Your task to perform on an android device: Do I have any events today? Image 0: 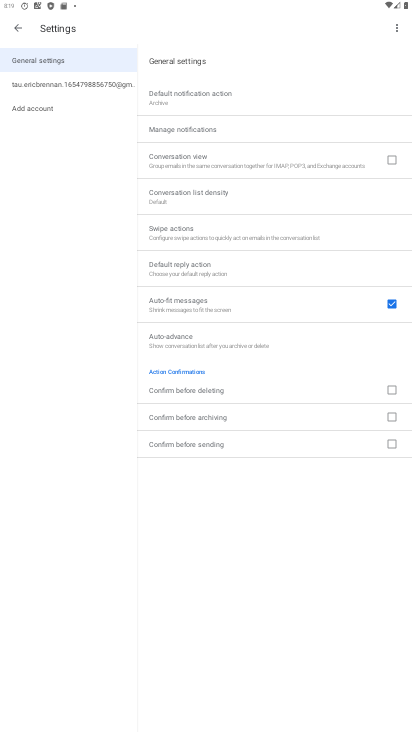
Step 0: click (373, 712)
Your task to perform on an android device: Do I have any events today? Image 1: 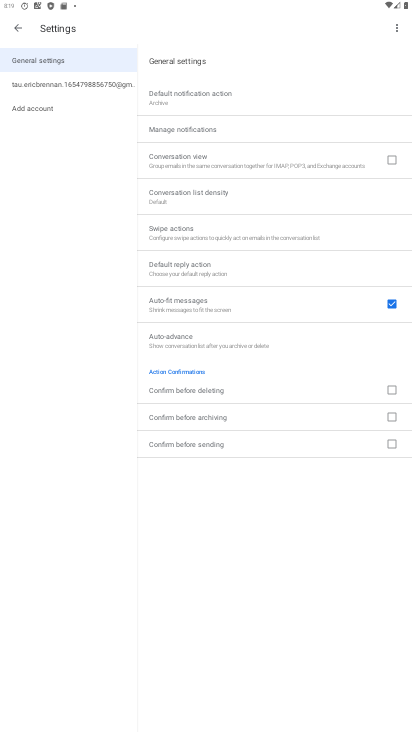
Step 1: drag from (242, 582) to (269, 155)
Your task to perform on an android device: Do I have any events today? Image 2: 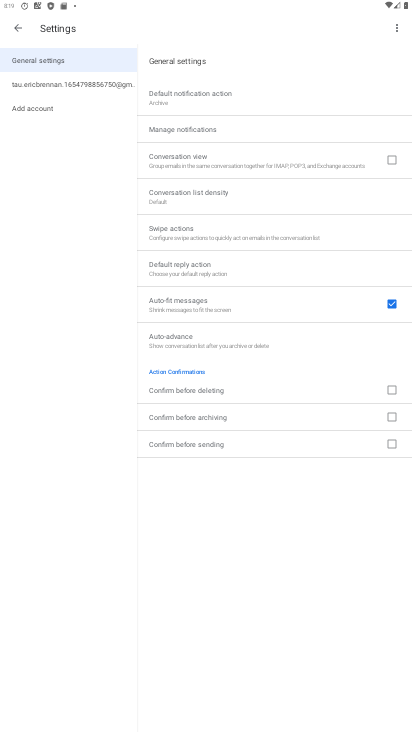
Step 2: click (49, 80)
Your task to perform on an android device: Do I have any events today? Image 3: 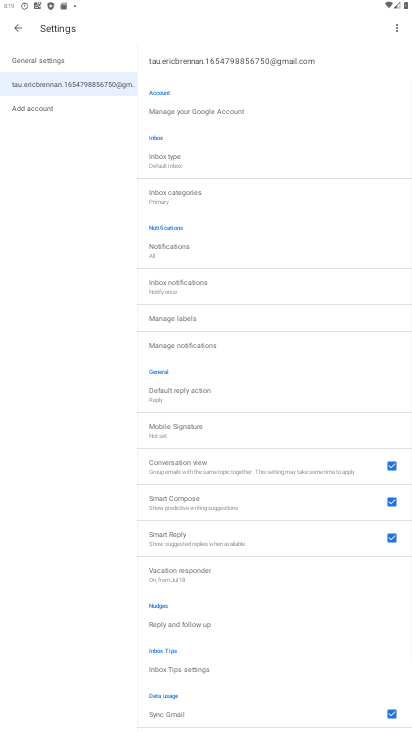
Step 3: press home button
Your task to perform on an android device: Do I have any events today? Image 4: 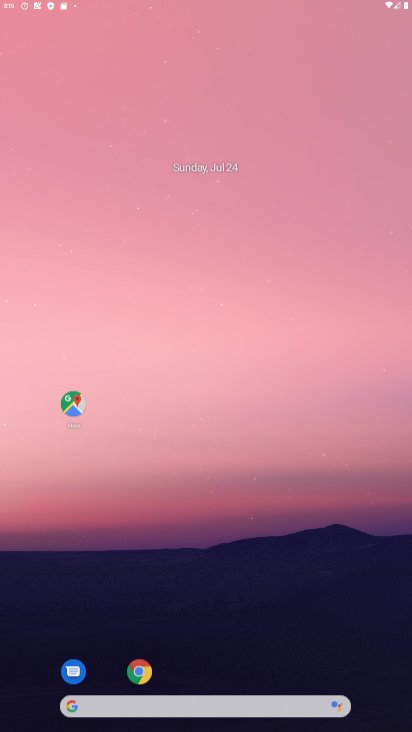
Step 4: drag from (210, 642) to (275, 22)
Your task to perform on an android device: Do I have any events today? Image 5: 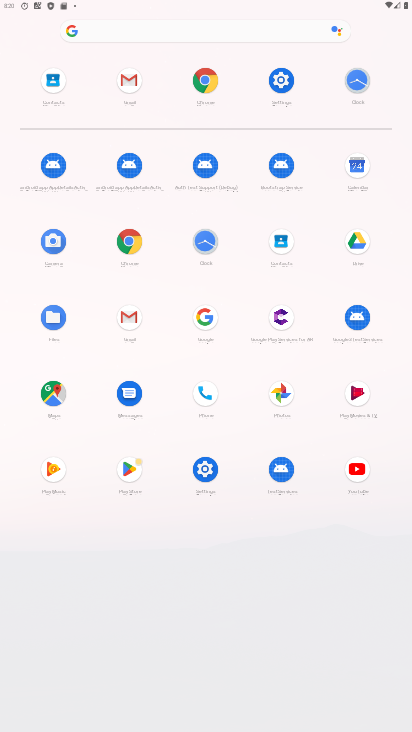
Step 5: click (179, 28)
Your task to perform on an android device: Do I have any events today? Image 6: 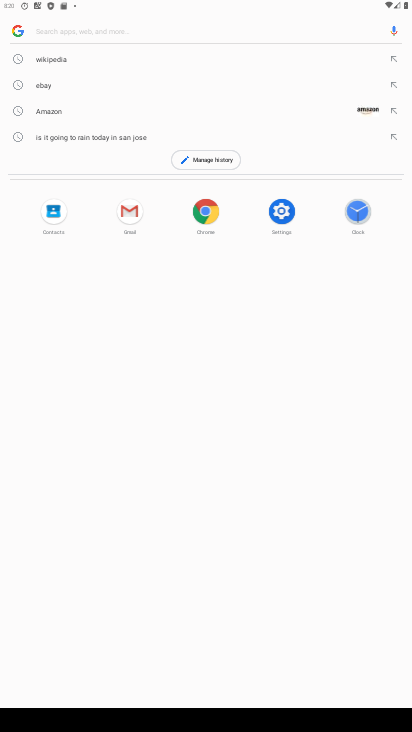
Step 6: click (56, 23)
Your task to perform on an android device: Do I have any events today? Image 7: 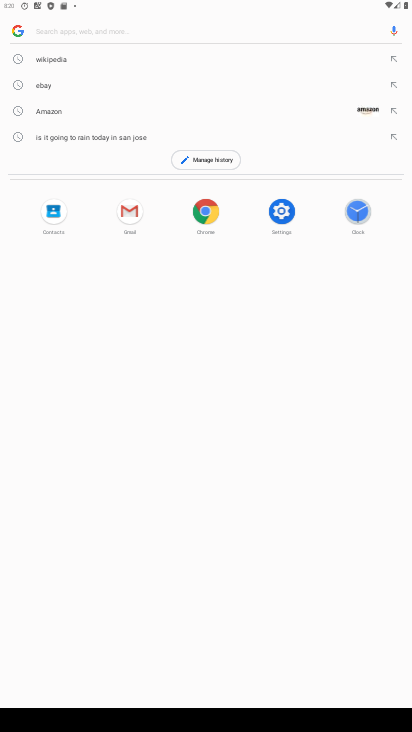
Step 7: click (56, 23)
Your task to perform on an android device: Do I have any events today? Image 8: 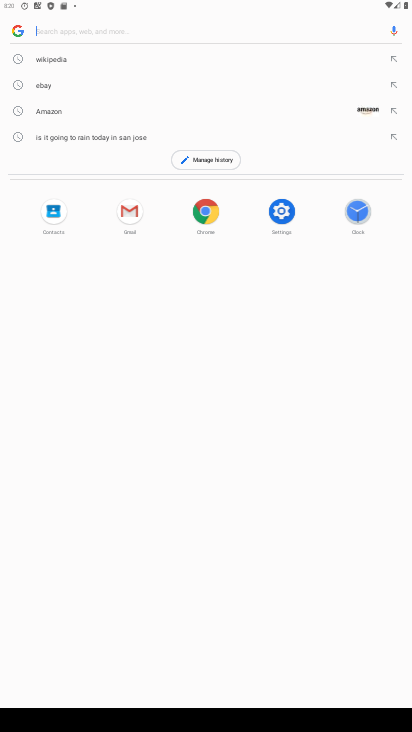
Step 8: press home button
Your task to perform on an android device: Do I have any events today? Image 9: 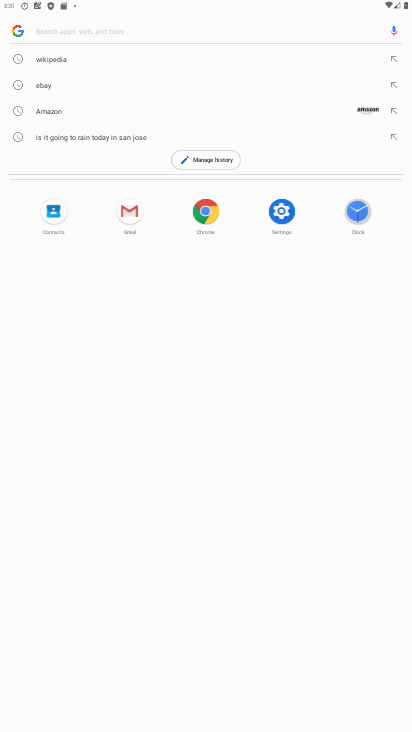
Step 9: press home button
Your task to perform on an android device: Do I have any events today? Image 10: 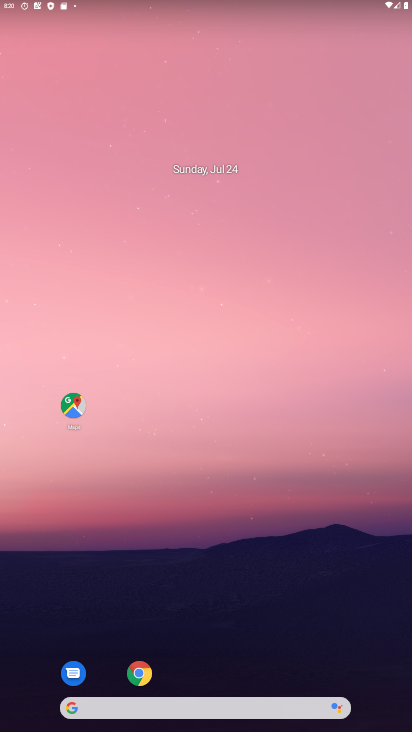
Step 10: drag from (185, 634) to (270, 214)
Your task to perform on an android device: Do I have any events today? Image 11: 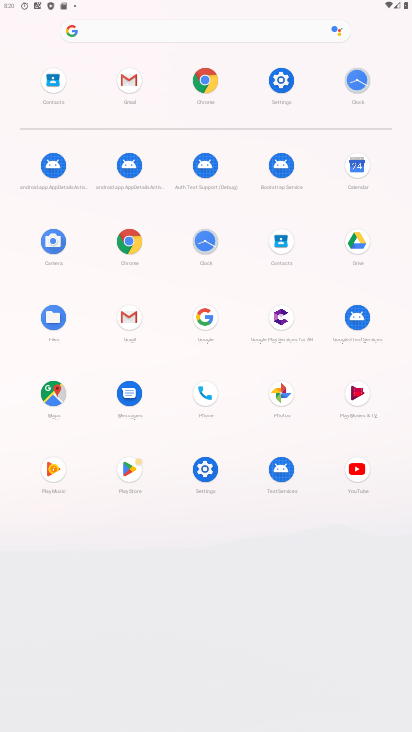
Step 11: click (360, 167)
Your task to perform on an android device: Do I have any events today? Image 12: 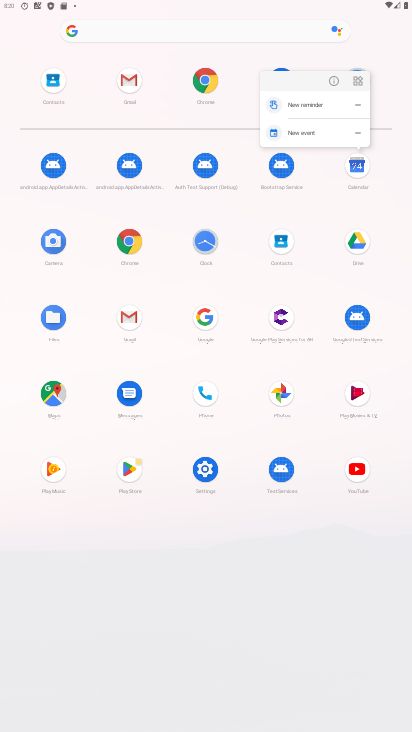
Step 12: click (333, 85)
Your task to perform on an android device: Do I have any events today? Image 13: 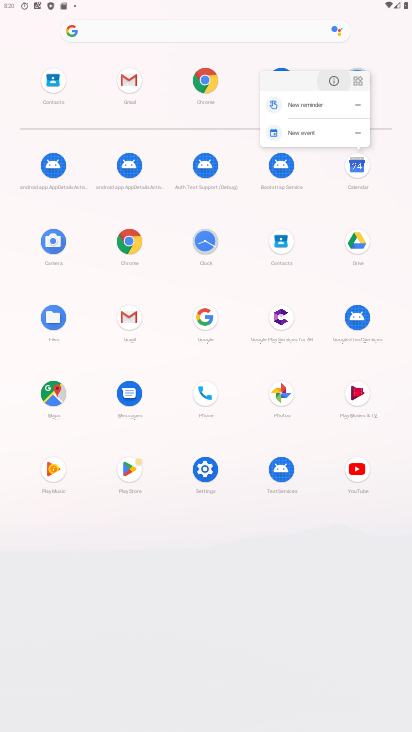
Step 13: click (333, 85)
Your task to perform on an android device: Do I have any events today? Image 14: 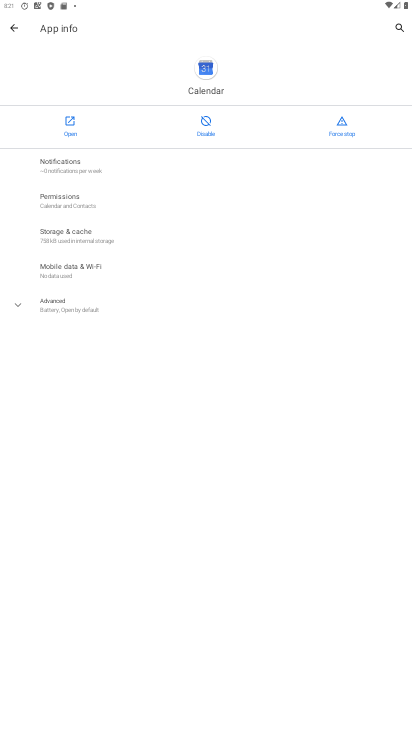
Step 14: click (66, 126)
Your task to perform on an android device: Do I have any events today? Image 15: 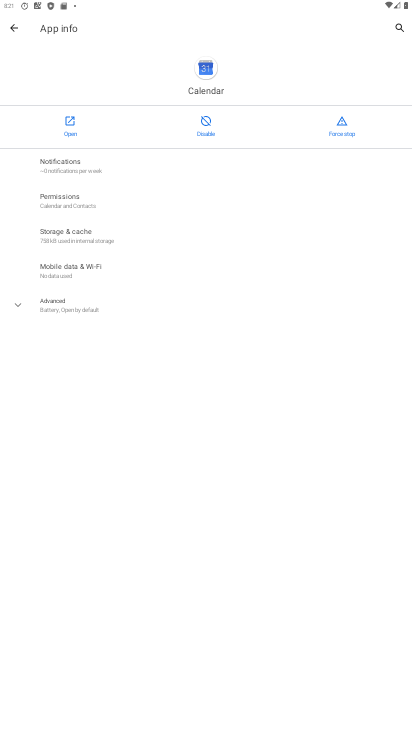
Step 15: click (66, 126)
Your task to perform on an android device: Do I have any events today? Image 16: 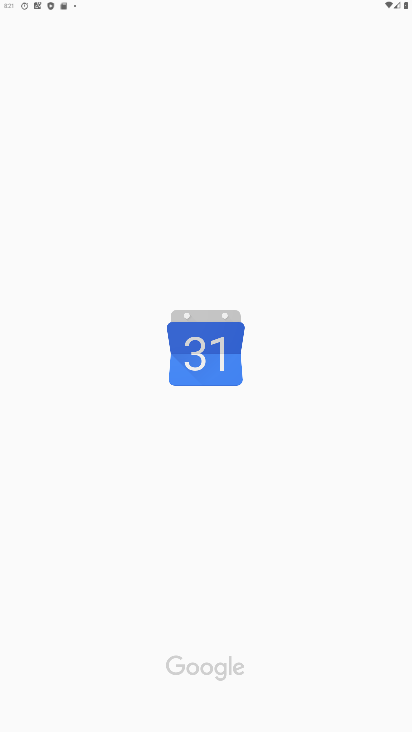
Step 16: drag from (298, 695) to (261, 458)
Your task to perform on an android device: Do I have any events today? Image 17: 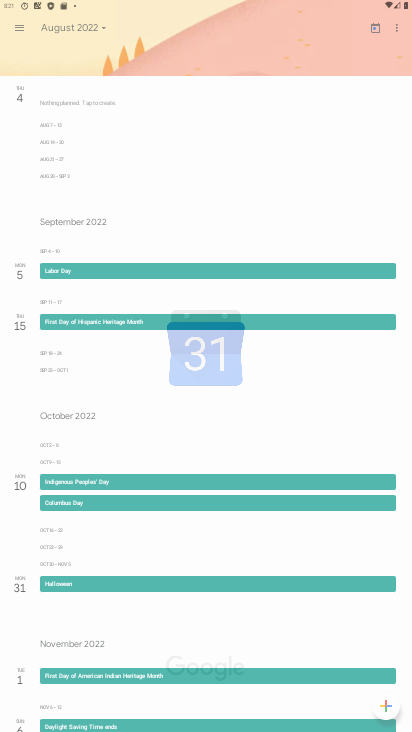
Step 17: drag from (240, 573) to (245, 99)
Your task to perform on an android device: Do I have any events today? Image 18: 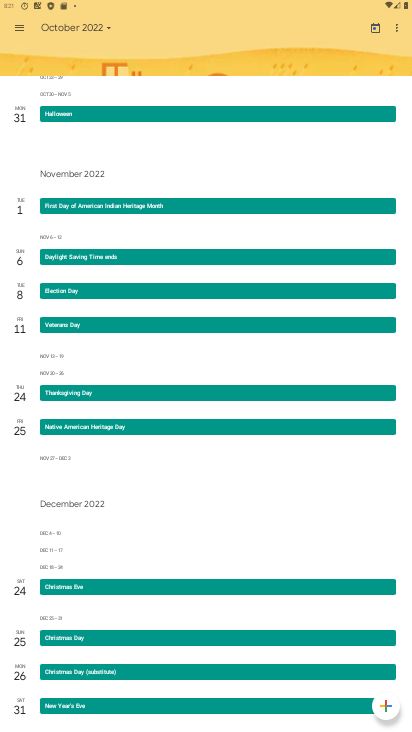
Step 18: drag from (155, 221) to (239, 657)
Your task to perform on an android device: Do I have any events today? Image 19: 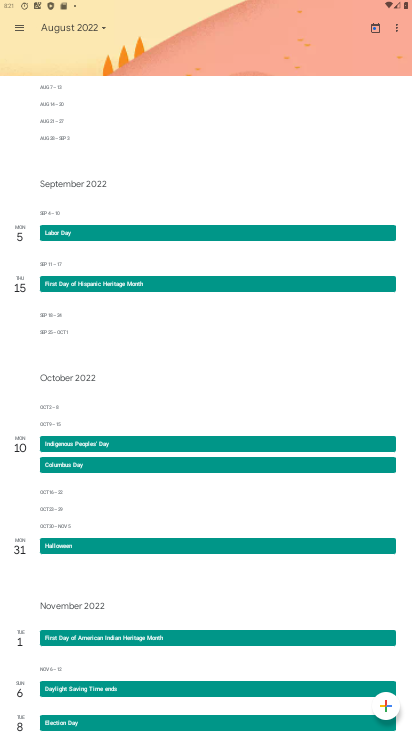
Step 19: click (65, 30)
Your task to perform on an android device: Do I have any events today? Image 20: 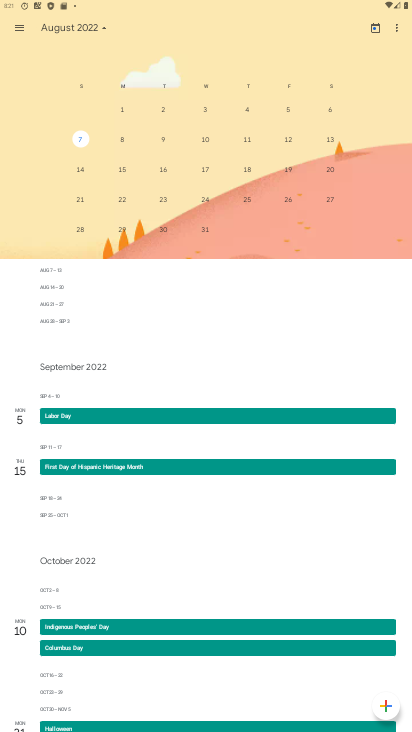
Step 20: drag from (222, 514) to (230, 166)
Your task to perform on an android device: Do I have any events today? Image 21: 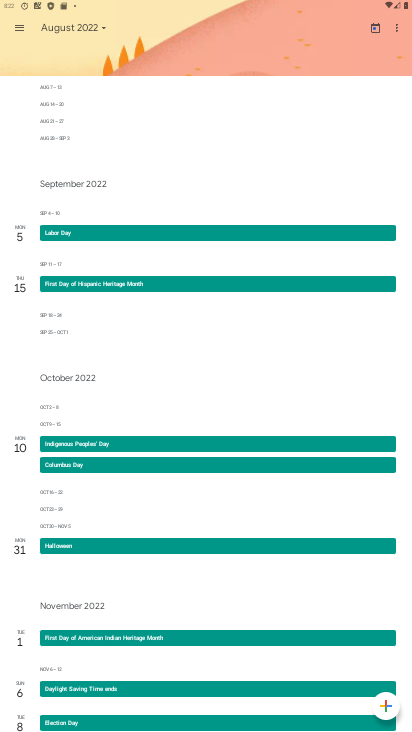
Step 21: click (51, 41)
Your task to perform on an android device: Do I have any events today? Image 22: 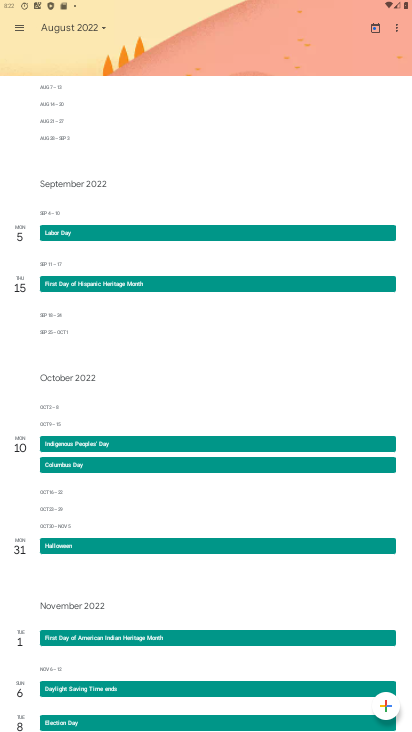
Step 22: click (79, 22)
Your task to perform on an android device: Do I have any events today? Image 23: 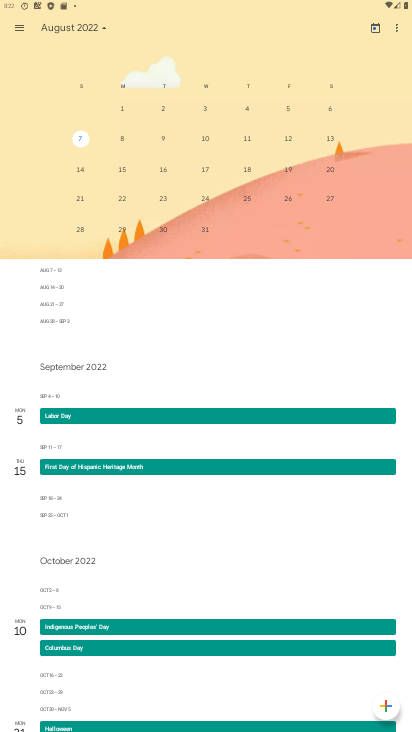
Step 23: click (365, 31)
Your task to perform on an android device: Do I have any events today? Image 24: 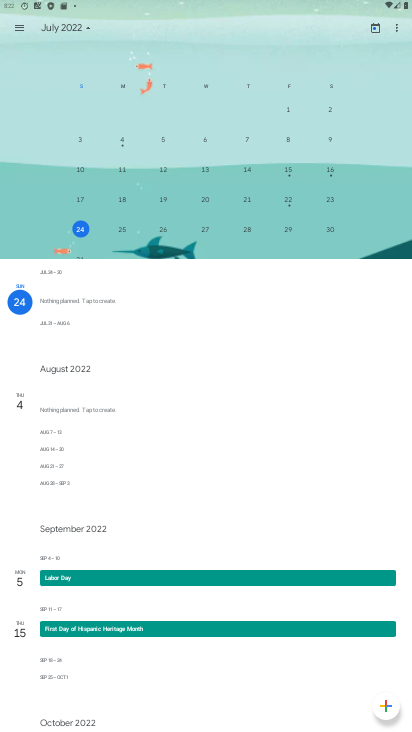
Step 24: click (85, 229)
Your task to perform on an android device: Do I have any events today? Image 25: 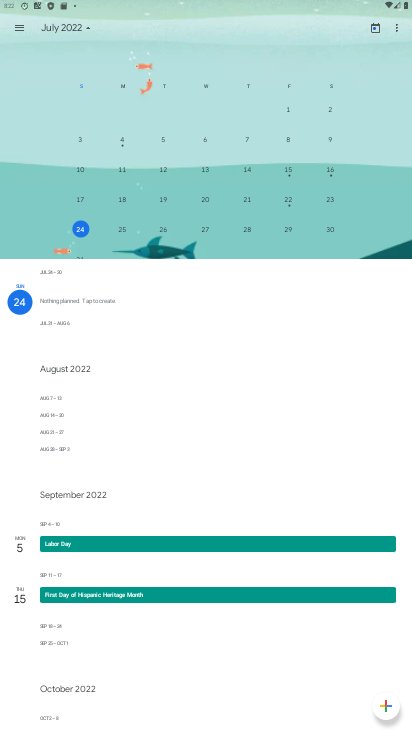
Step 25: task complete